Your task to perform on an android device: Go to eBay Image 0: 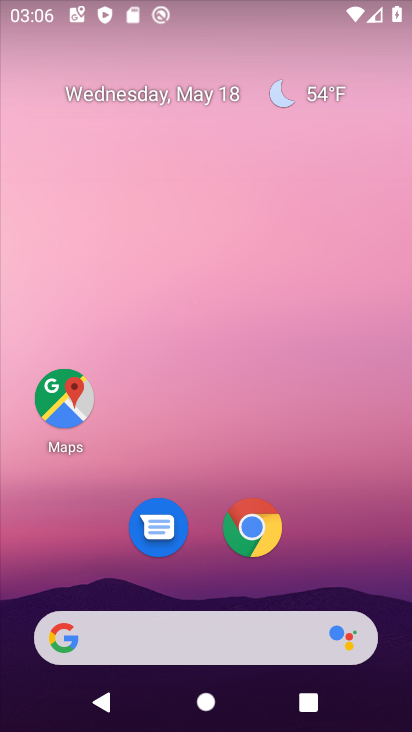
Step 0: drag from (202, 603) to (169, 17)
Your task to perform on an android device: Go to eBay Image 1: 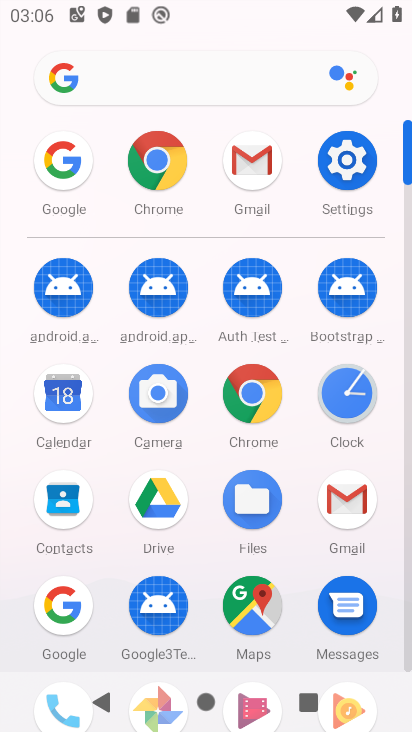
Step 1: click (259, 391)
Your task to perform on an android device: Go to eBay Image 2: 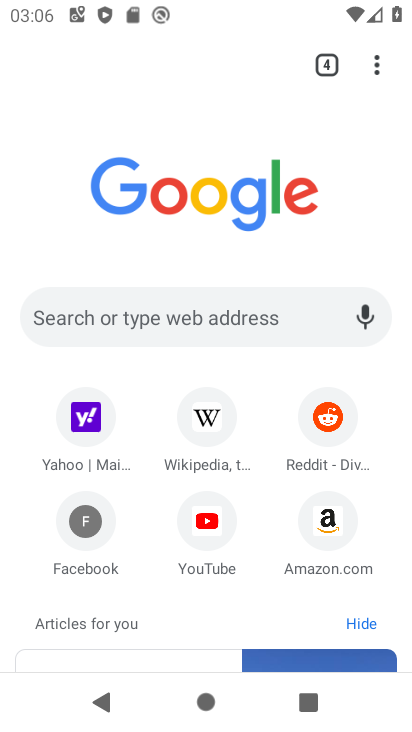
Step 2: click (227, 336)
Your task to perform on an android device: Go to eBay Image 3: 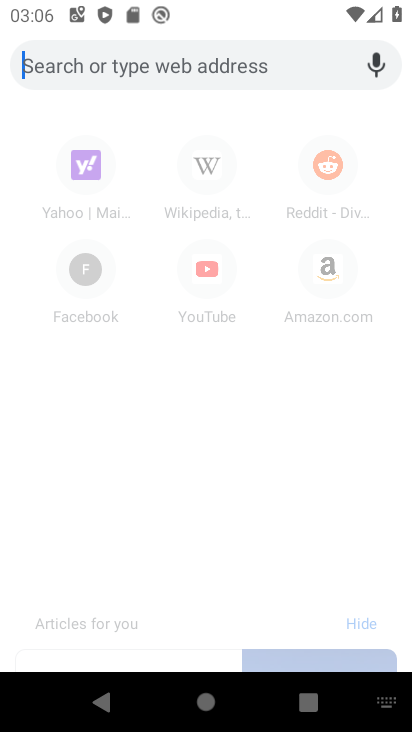
Step 3: type "ebay"
Your task to perform on an android device: Go to eBay Image 4: 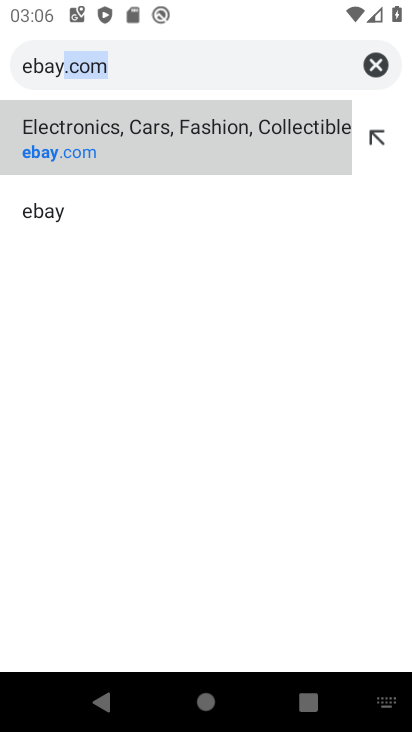
Step 4: click (78, 107)
Your task to perform on an android device: Go to eBay Image 5: 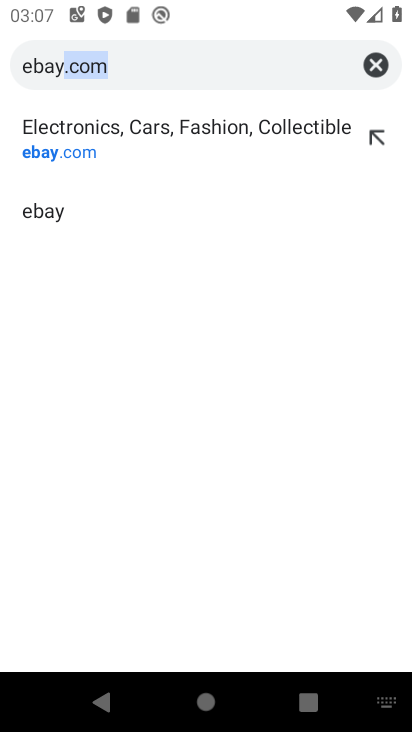
Step 5: click (107, 149)
Your task to perform on an android device: Go to eBay Image 6: 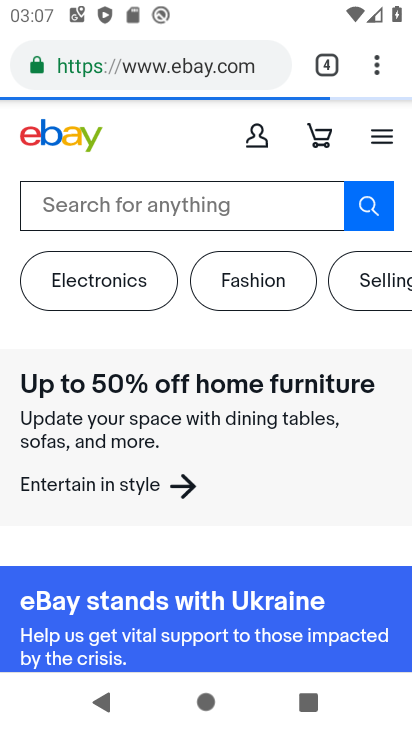
Step 6: task complete